Your task to perform on an android device: What's the weather today? Image 0: 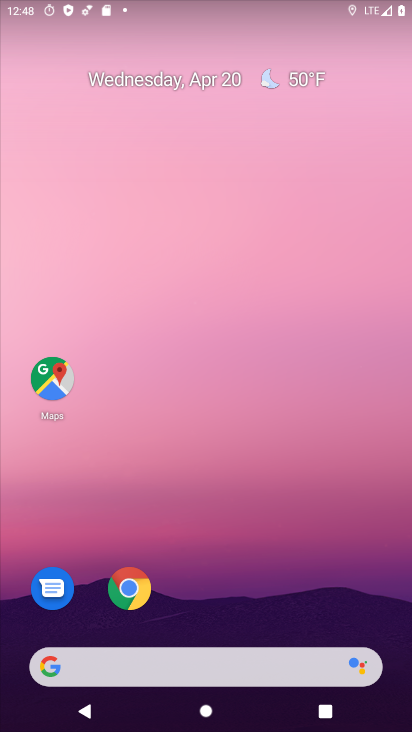
Step 0: drag from (225, 631) to (200, 32)
Your task to perform on an android device: What's the weather today? Image 1: 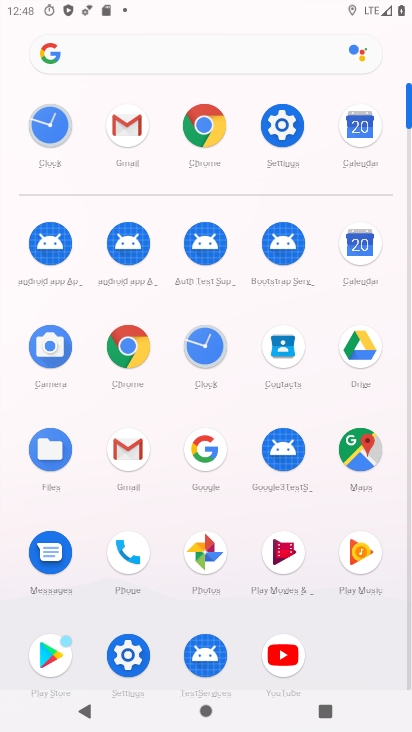
Step 1: click (198, 450)
Your task to perform on an android device: What's the weather today? Image 2: 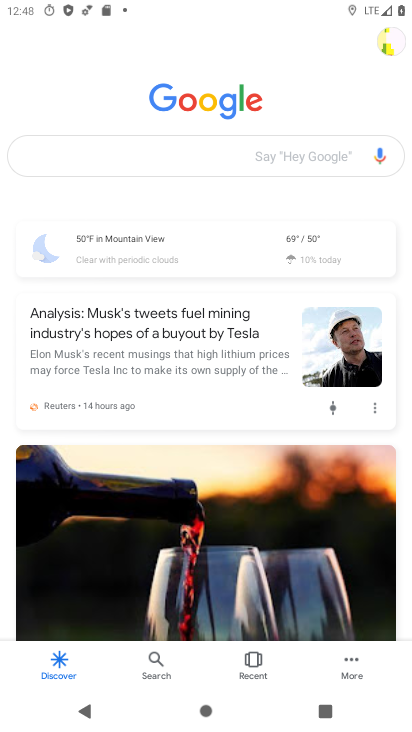
Step 2: click (131, 253)
Your task to perform on an android device: What's the weather today? Image 3: 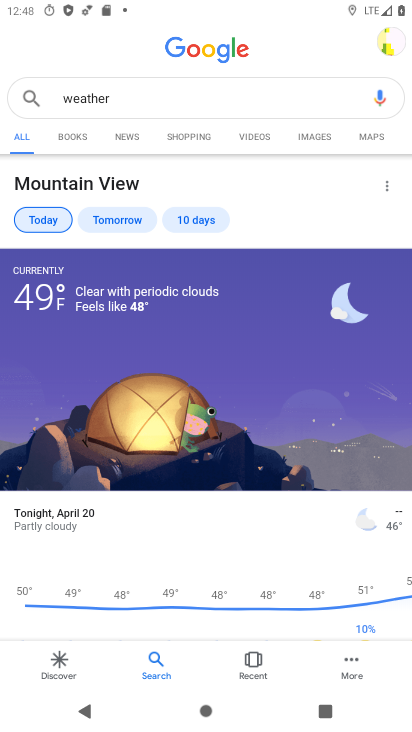
Step 3: task complete